Your task to perform on an android device: turn off improve location accuracy Image 0: 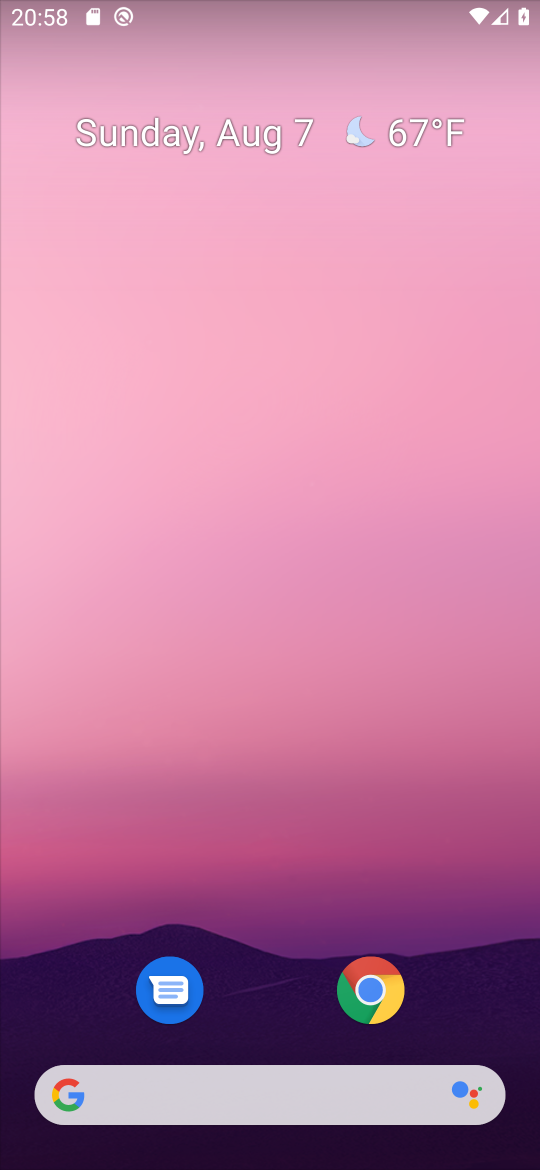
Step 0: drag from (276, 828) to (197, 37)
Your task to perform on an android device: turn off improve location accuracy Image 1: 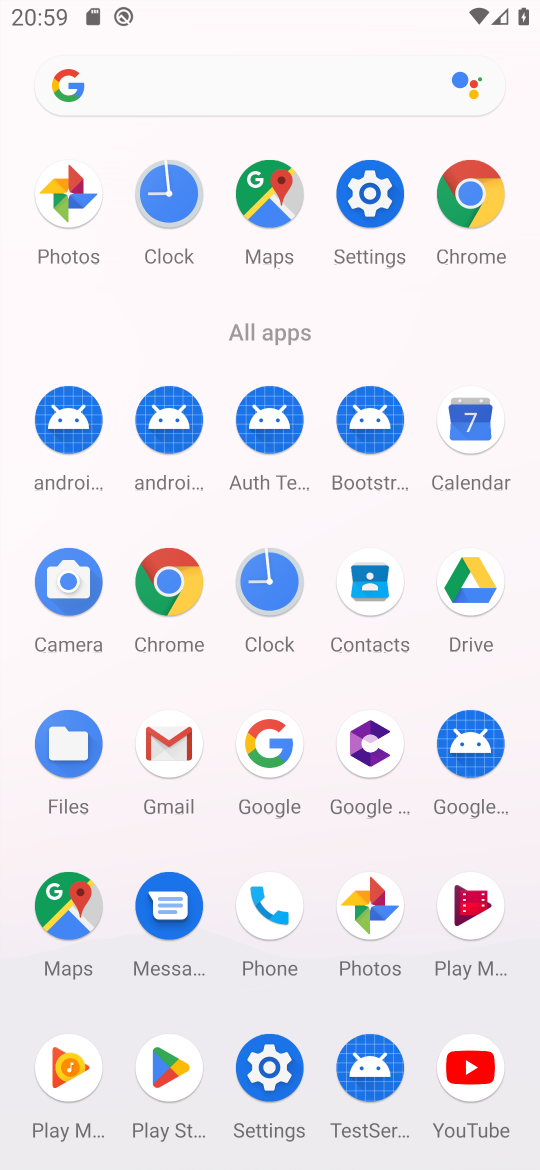
Step 1: click (368, 200)
Your task to perform on an android device: turn off improve location accuracy Image 2: 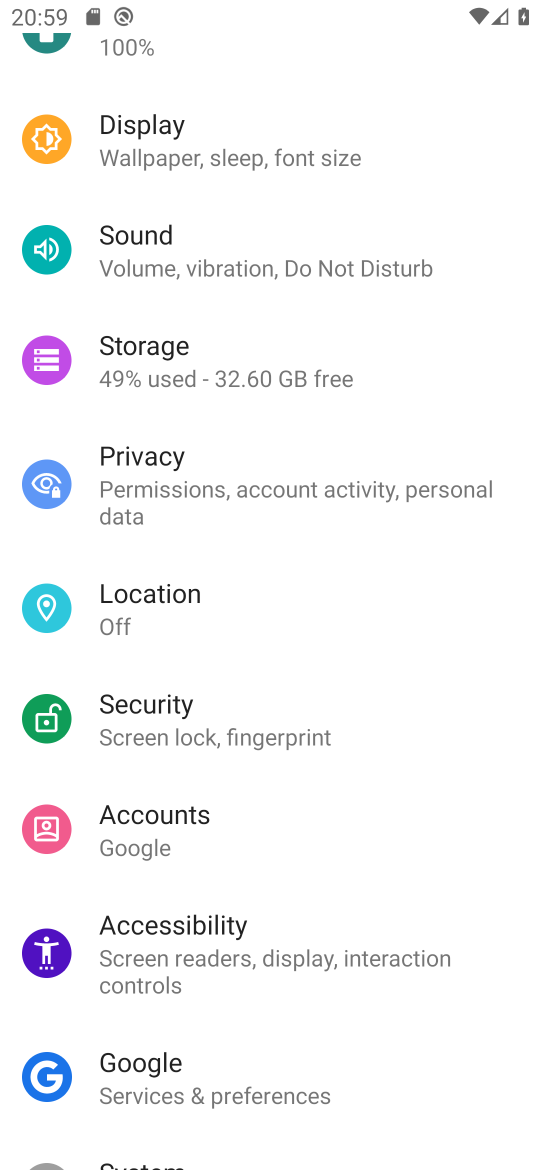
Step 2: click (237, 602)
Your task to perform on an android device: turn off improve location accuracy Image 3: 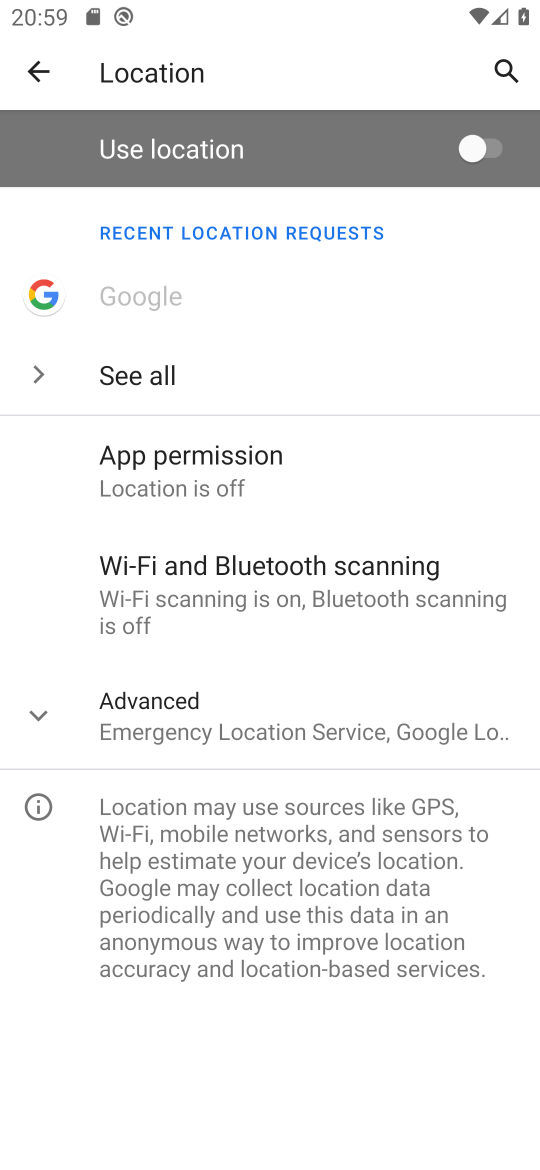
Step 3: click (45, 707)
Your task to perform on an android device: turn off improve location accuracy Image 4: 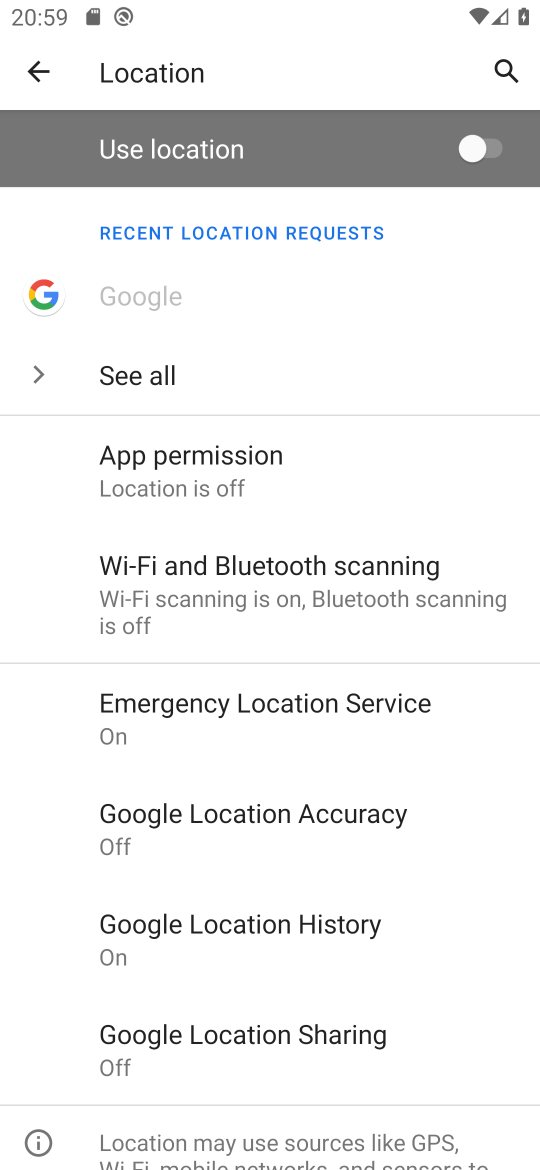
Step 4: click (276, 836)
Your task to perform on an android device: turn off improve location accuracy Image 5: 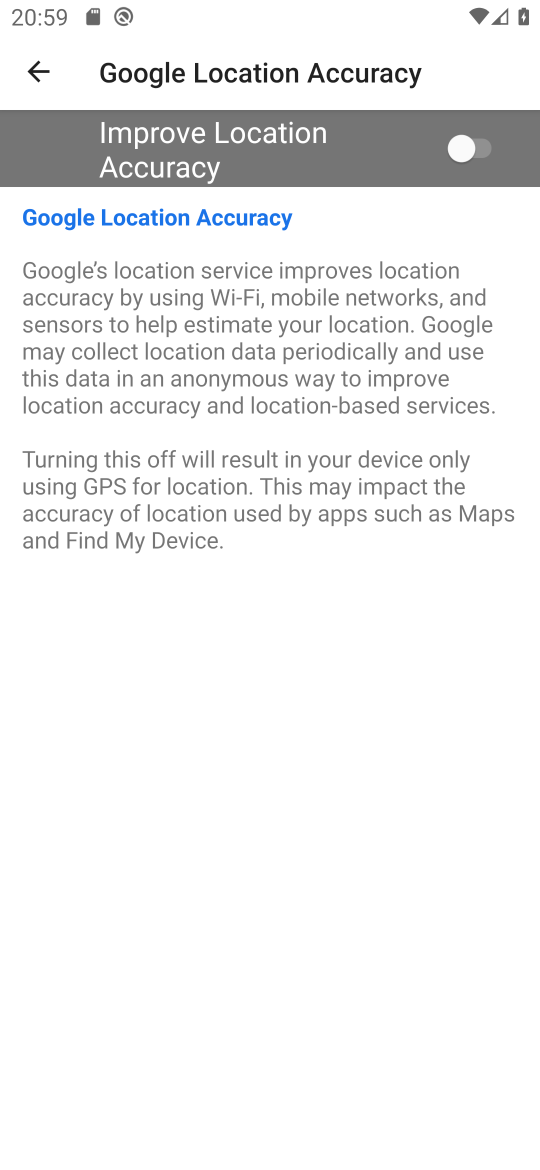
Step 5: task complete